Your task to perform on an android device: toggle notifications settings in the gmail app Image 0: 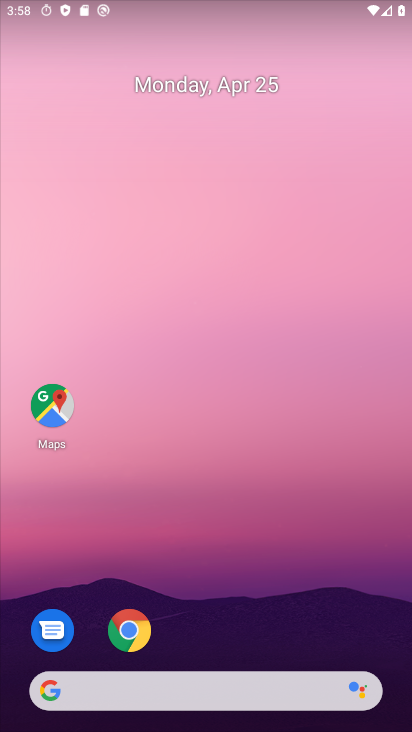
Step 0: drag from (301, 294) to (320, 47)
Your task to perform on an android device: toggle notifications settings in the gmail app Image 1: 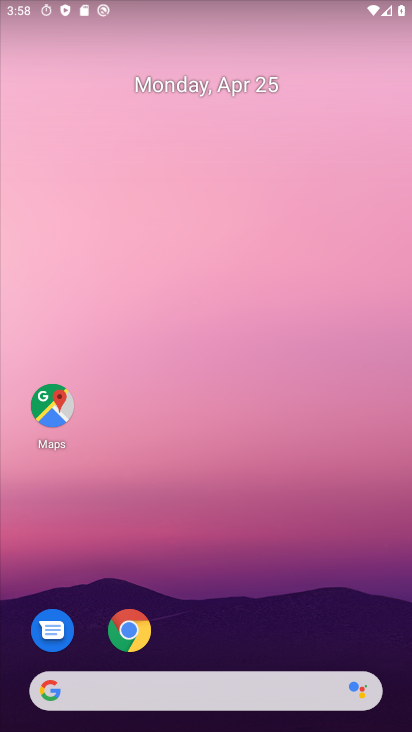
Step 1: drag from (351, 524) to (382, 38)
Your task to perform on an android device: toggle notifications settings in the gmail app Image 2: 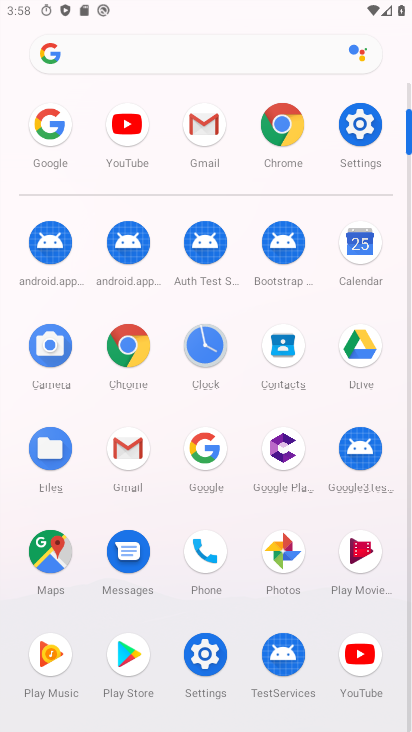
Step 2: click (205, 130)
Your task to perform on an android device: toggle notifications settings in the gmail app Image 3: 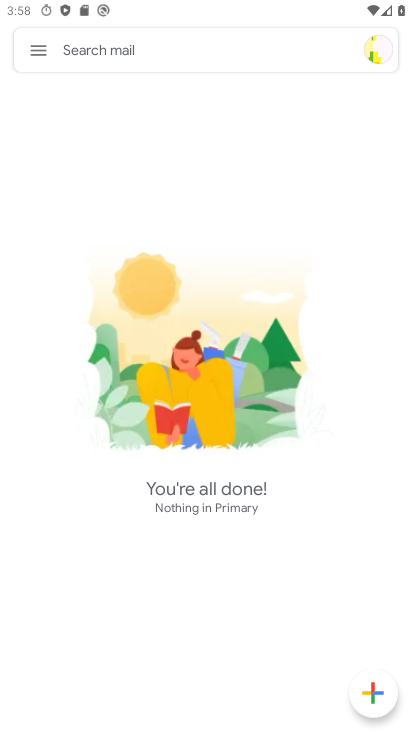
Step 3: click (37, 27)
Your task to perform on an android device: toggle notifications settings in the gmail app Image 4: 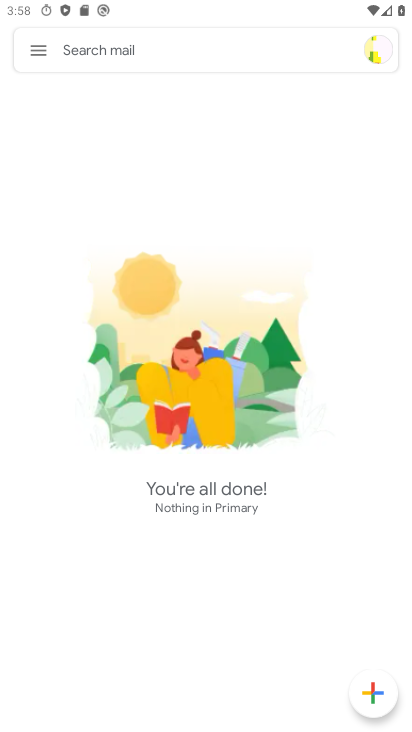
Step 4: click (39, 53)
Your task to perform on an android device: toggle notifications settings in the gmail app Image 5: 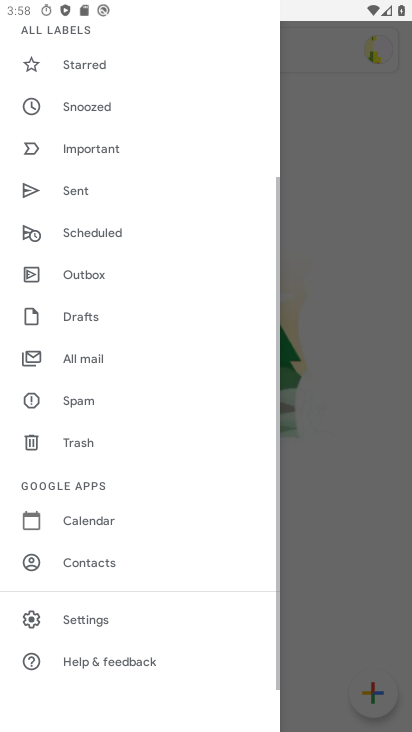
Step 5: drag from (130, 556) to (176, 199)
Your task to perform on an android device: toggle notifications settings in the gmail app Image 6: 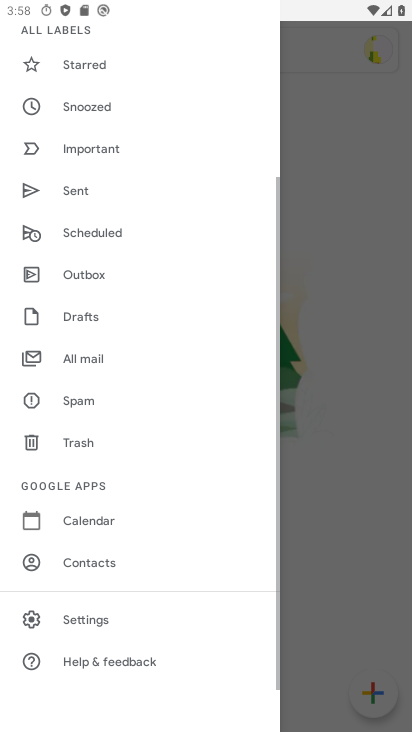
Step 6: click (80, 615)
Your task to perform on an android device: toggle notifications settings in the gmail app Image 7: 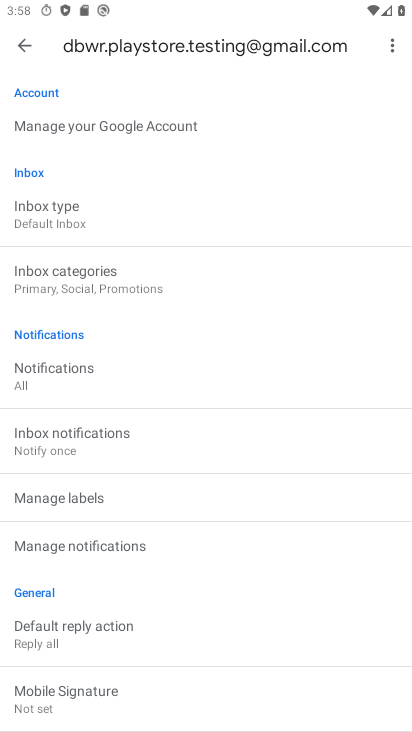
Step 7: click (98, 389)
Your task to perform on an android device: toggle notifications settings in the gmail app Image 8: 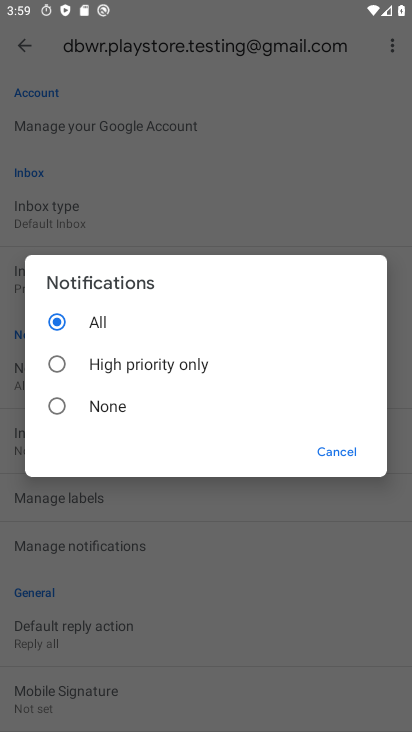
Step 8: click (56, 369)
Your task to perform on an android device: toggle notifications settings in the gmail app Image 9: 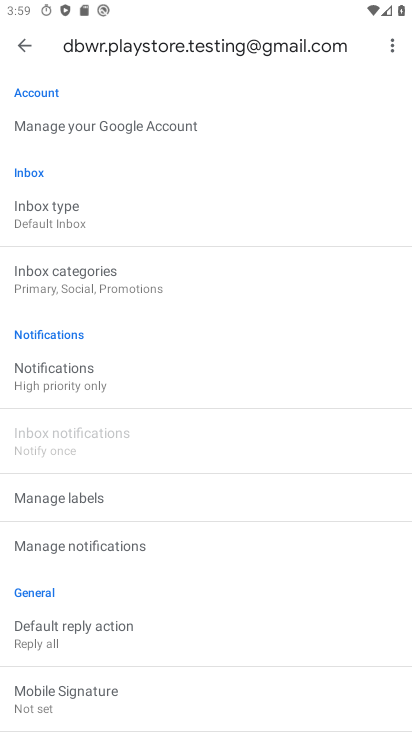
Step 9: click (114, 380)
Your task to perform on an android device: toggle notifications settings in the gmail app Image 10: 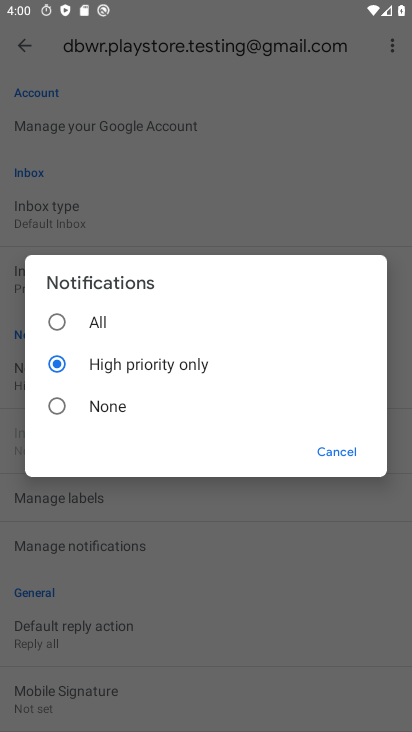
Step 10: task complete